Your task to perform on an android device: Open Wikipedia Image 0: 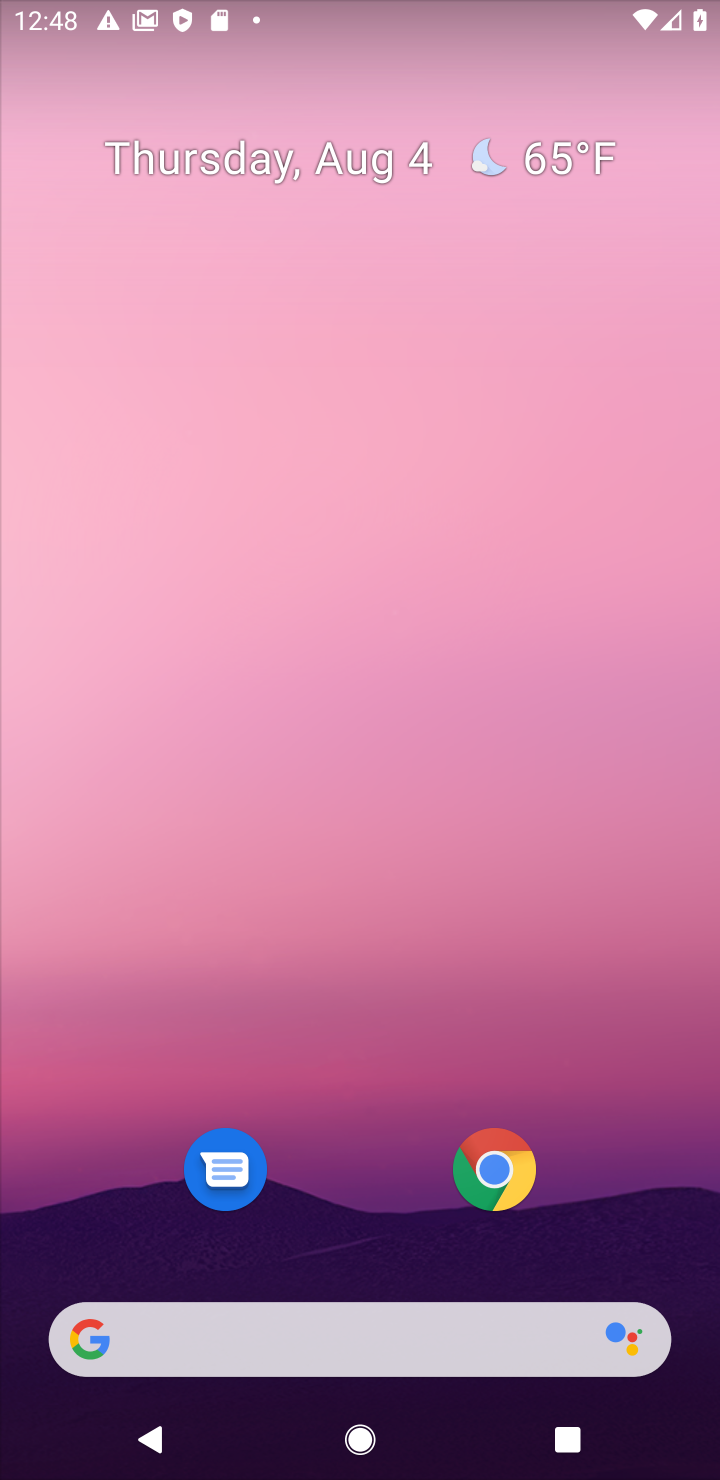
Step 0: press home button
Your task to perform on an android device: Open Wikipedia Image 1: 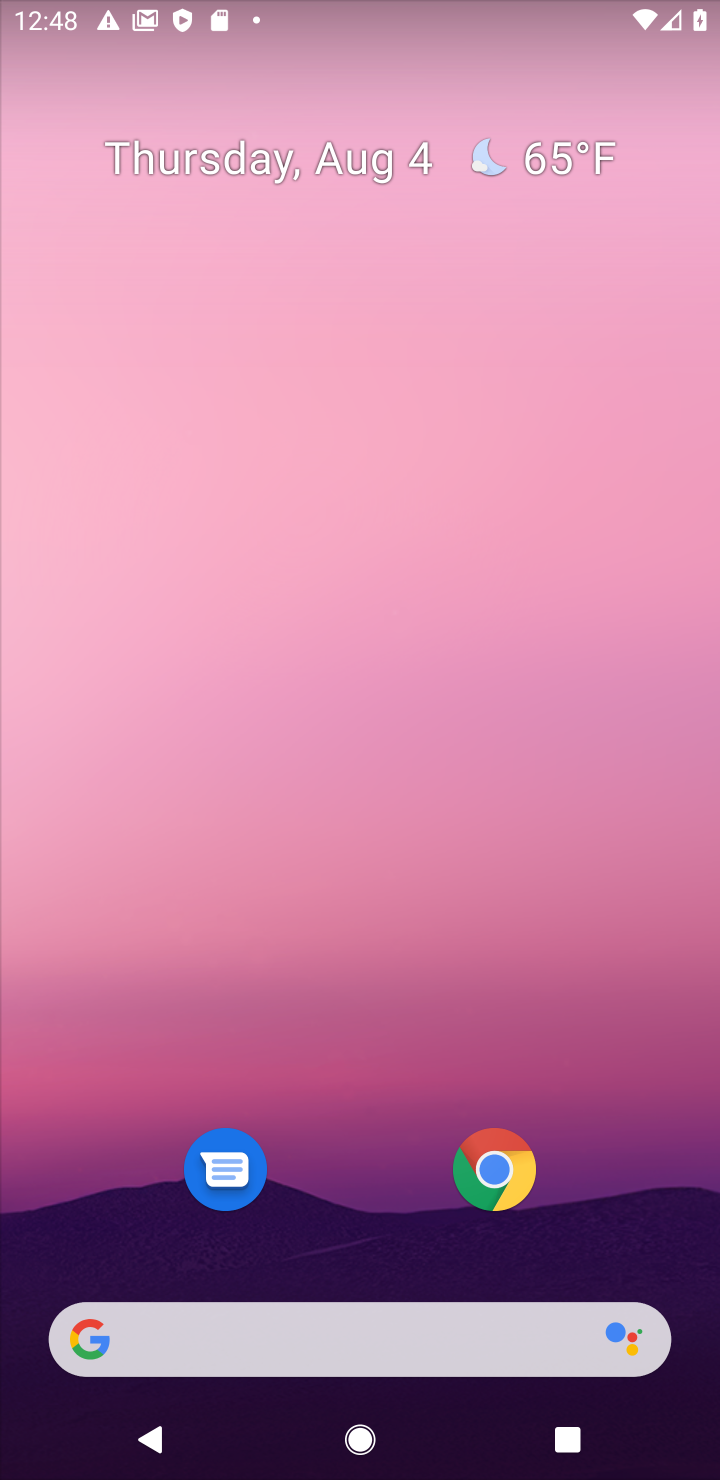
Step 1: drag from (342, 1130) to (629, 10)
Your task to perform on an android device: Open Wikipedia Image 2: 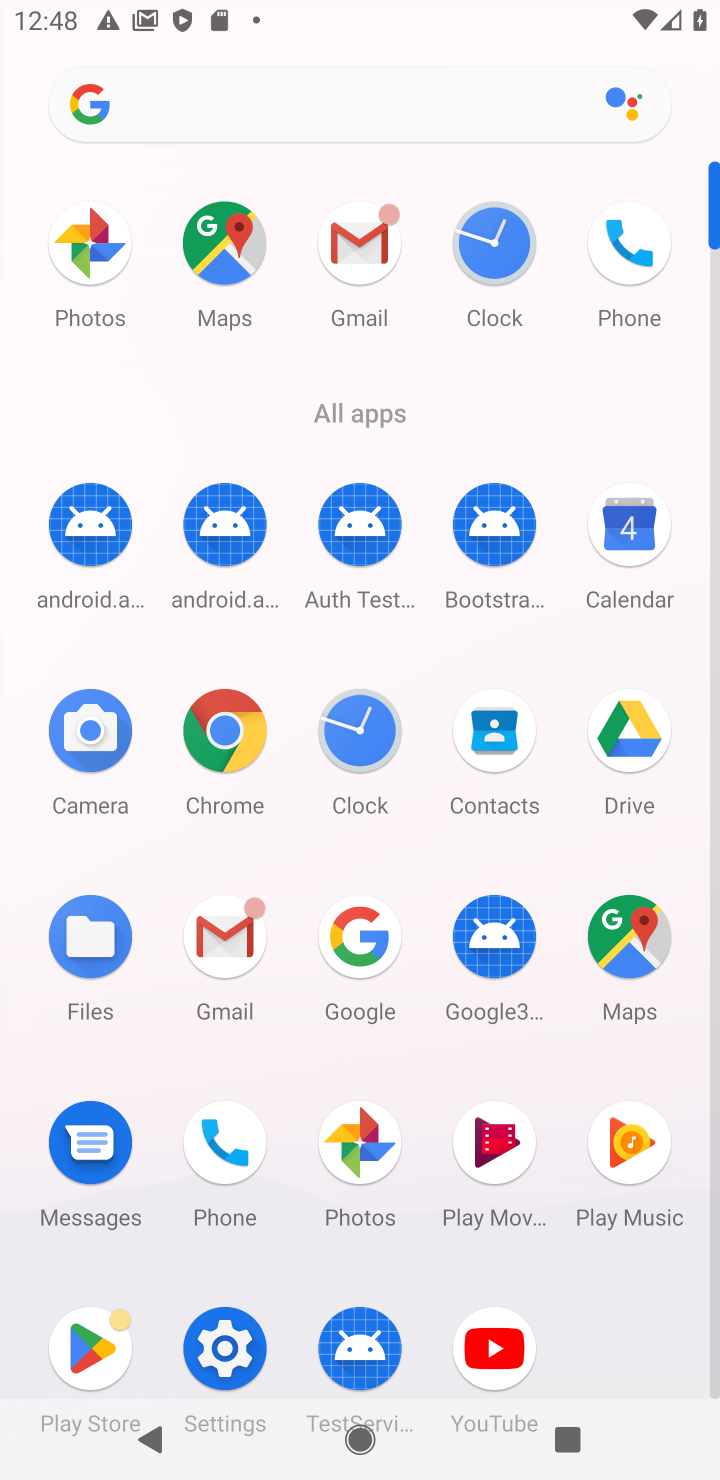
Step 2: click (225, 761)
Your task to perform on an android device: Open Wikipedia Image 3: 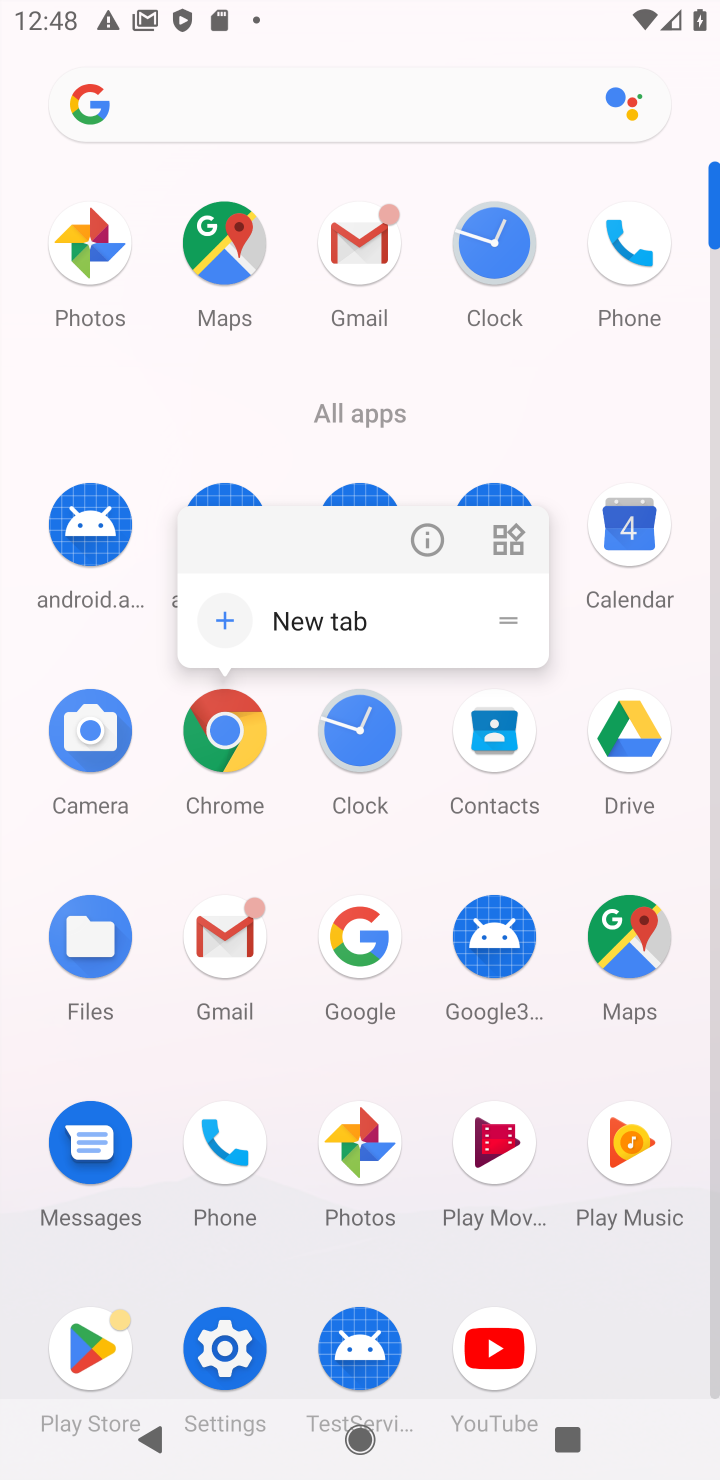
Step 3: click (212, 741)
Your task to perform on an android device: Open Wikipedia Image 4: 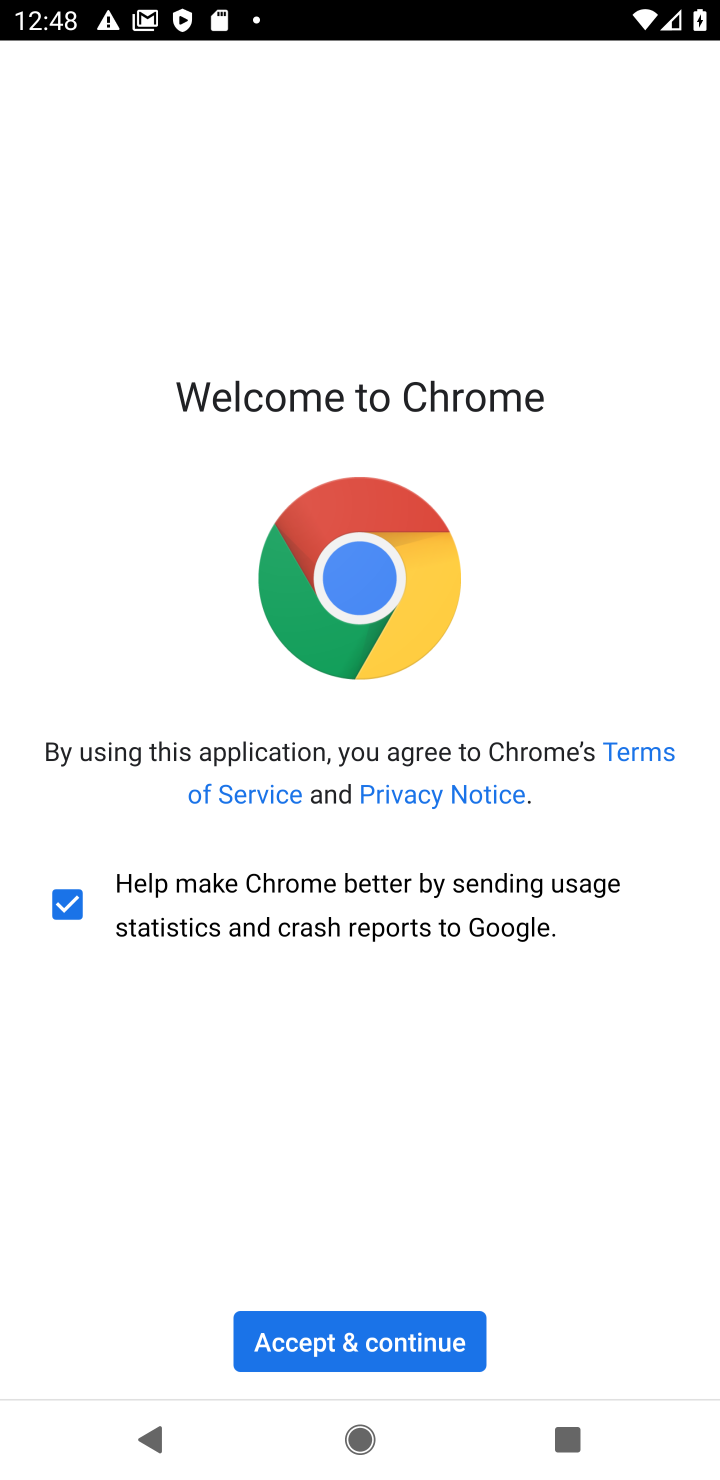
Step 4: click (381, 1315)
Your task to perform on an android device: Open Wikipedia Image 5: 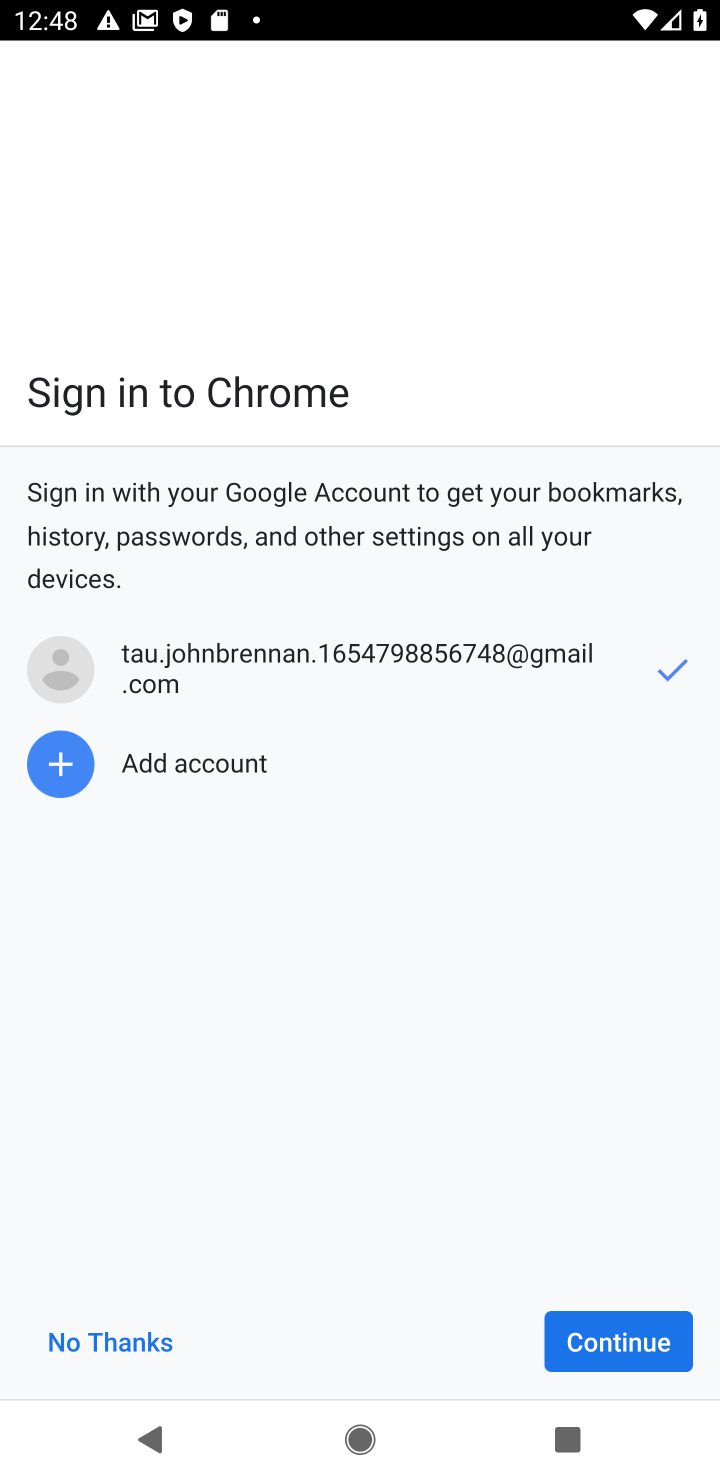
Step 5: click (594, 1347)
Your task to perform on an android device: Open Wikipedia Image 6: 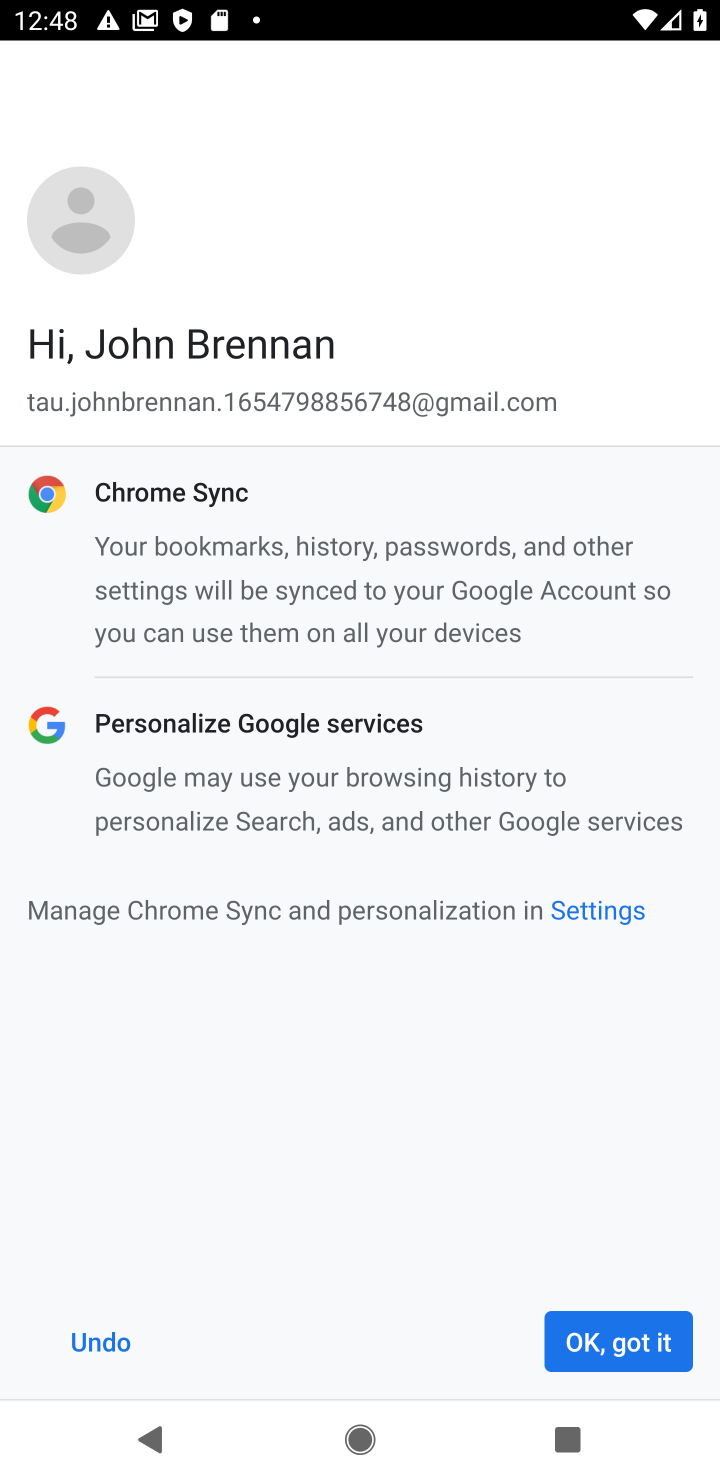
Step 6: click (588, 1333)
Your task to perform on an android device: Open Wikipedia Image 7: 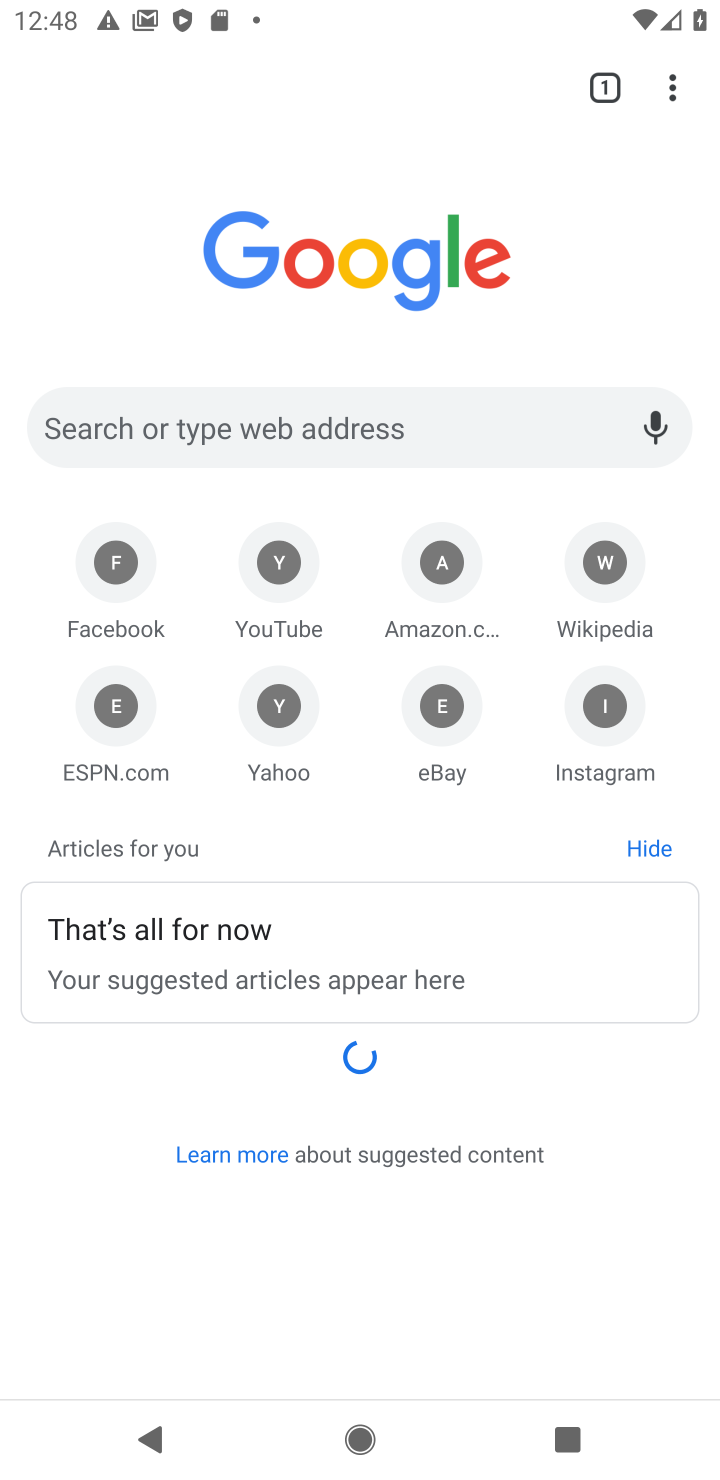
Step 7: click (596, 562)
Your task to perform on an android device: Open Wikipedia Image 8: 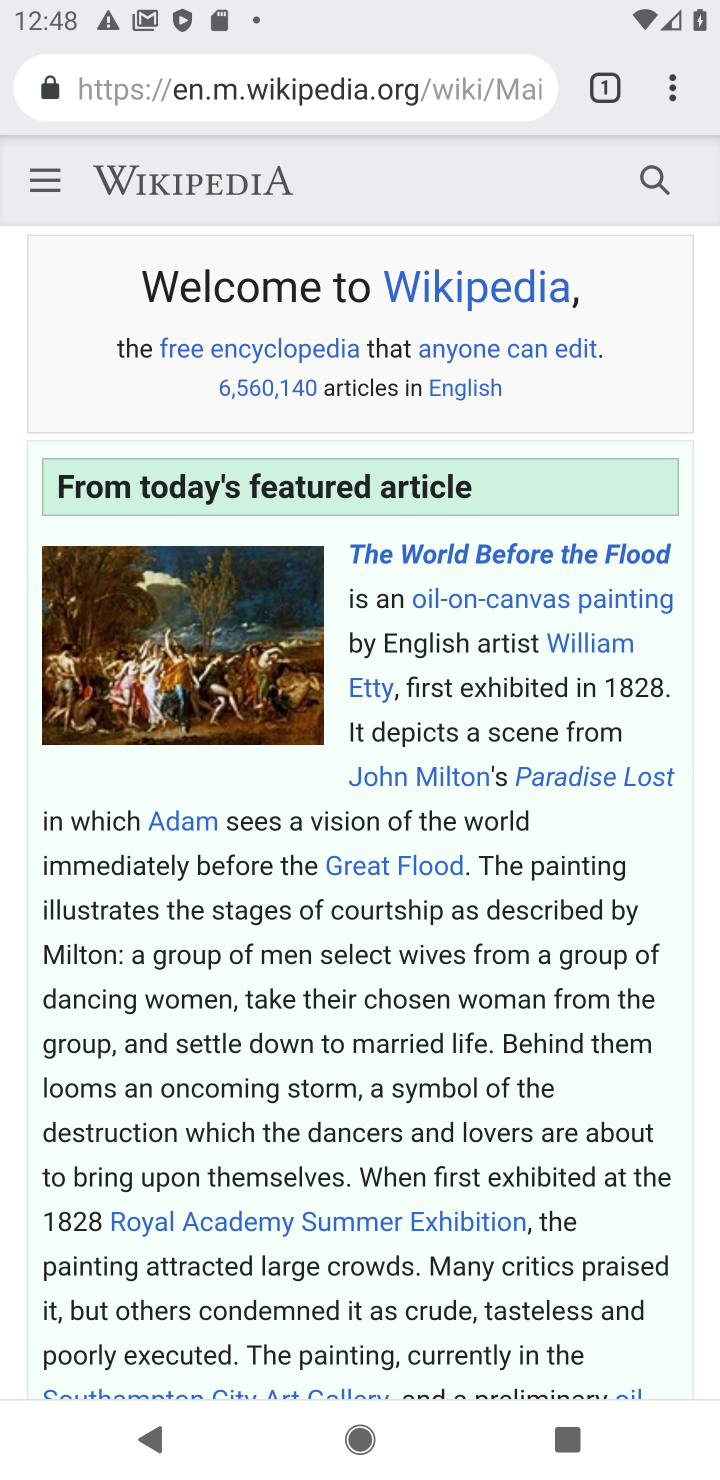
Step 8: task complete